Your task to perform on an android device: check battery use Image 0: 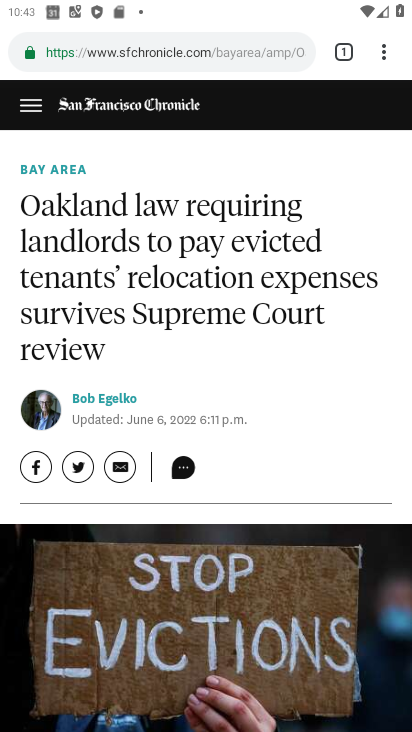
Step 0: press back button
Your task to perform on an android device: check battery use Image 1: 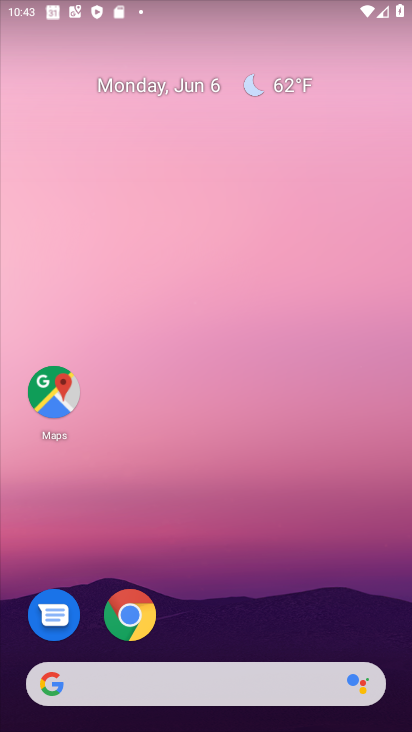
Step 1: drag from (191, 458) to (129, 155)
Your task to perform on an android device: check battery use Image 2: 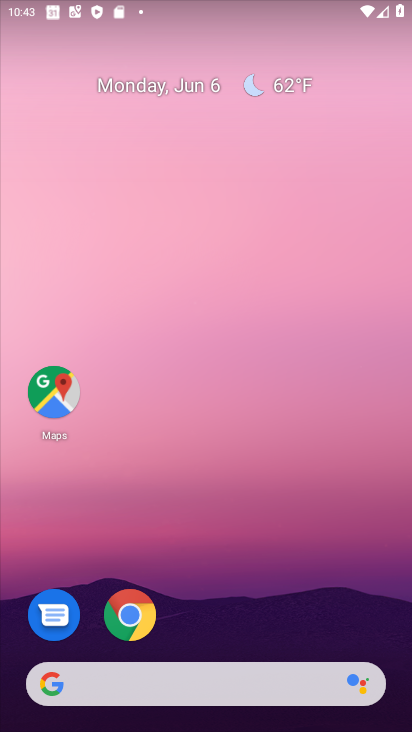
Step 2: drag from (227, 389) to (180, 59)
Your task to perform on an android device: check battery use Image 3: 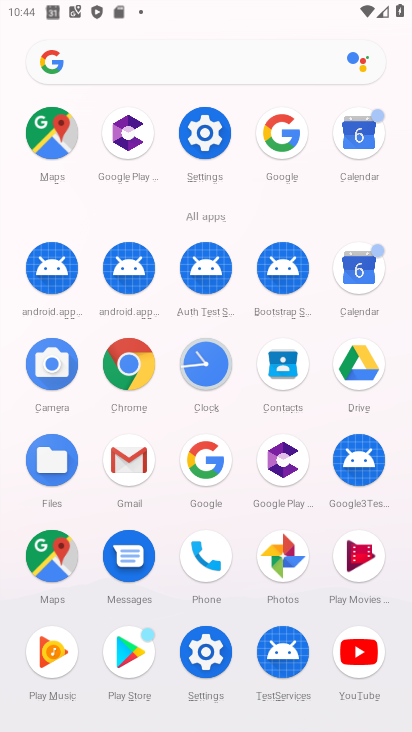
Step 3: drag from (239, 454) to (201, 91)
Your task to perform on an android device: check battery use Image 4: 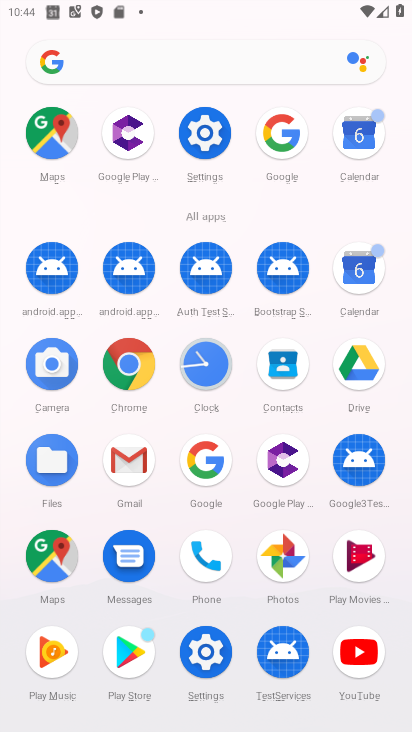
Step 4: click (200, 660)
Your task to perform on an android device: check battery use Image 5: 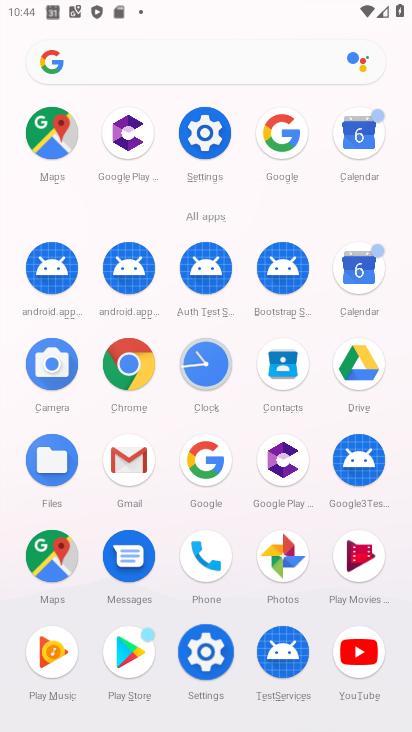
Step 5: click (200, 660)
Your task to perform on an android device: check battery use Image 6: 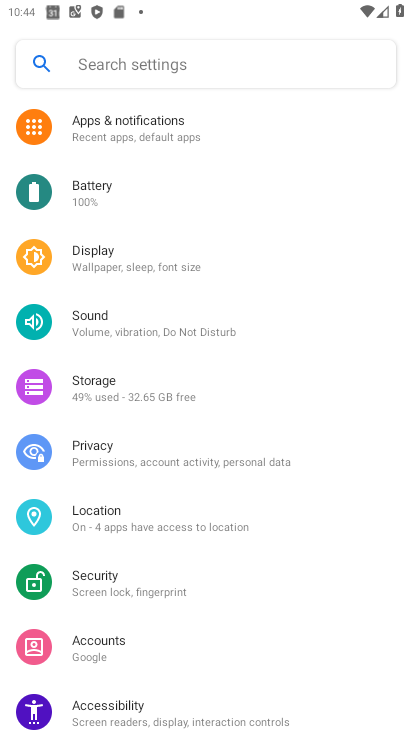
Step 6: click (199, 659)
Your task to perform on an android device: check battery use Image 7: 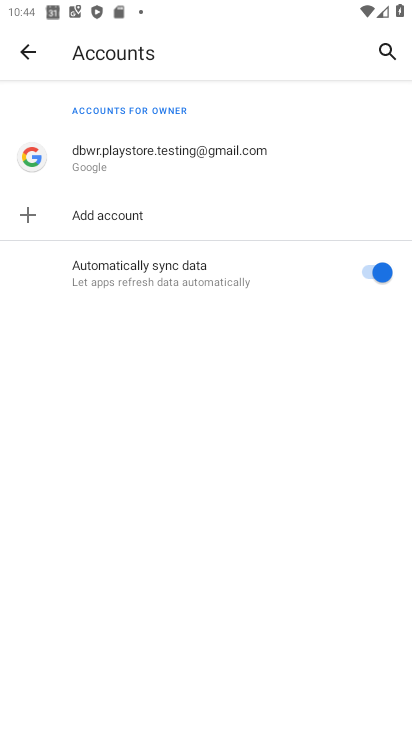
Step 7: click (28, 51)
Your task to perform on an android device: check battery use Image 8: 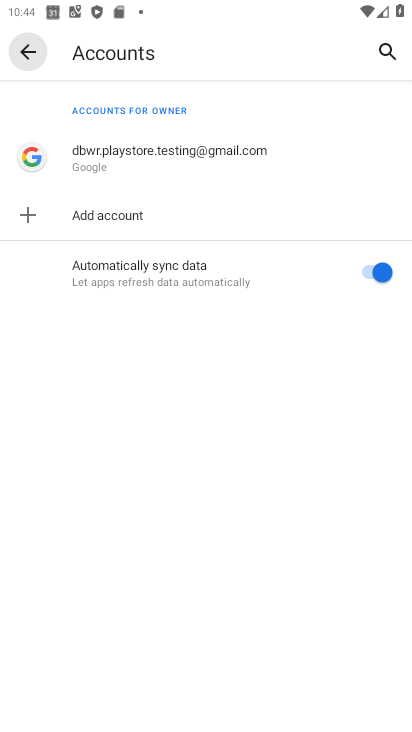
Step 8: click (28, 51)
Your task to perform on an android device: check battery use Image 9: 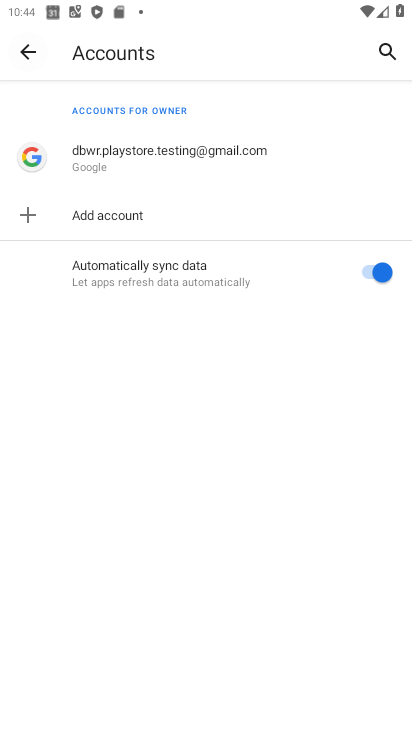
Step 9: click (29, 51)
Your task to perform on an android device: check battery use Image 10: 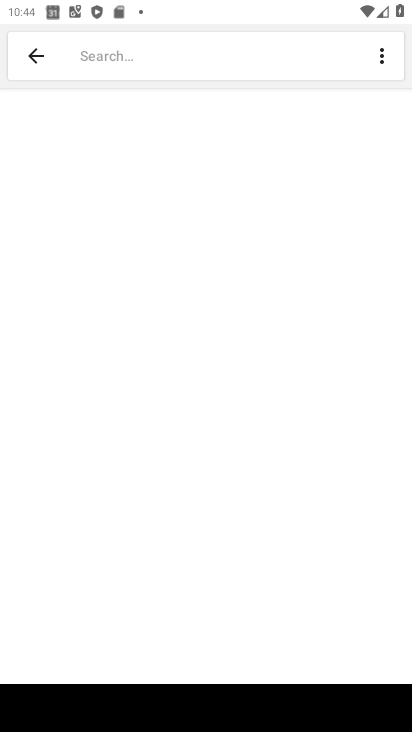
Step 10: click (35, 52)
Your task to perform on an android device: check battery use Image 11: 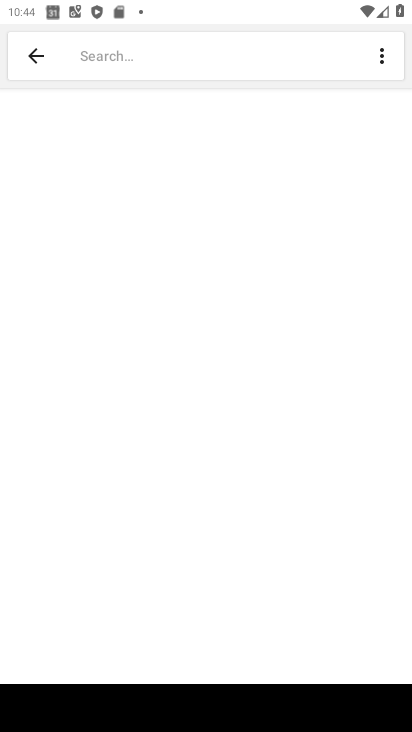
Step 11: click (35, 52)
Your task to perform on an android device: check battery use Image 12: 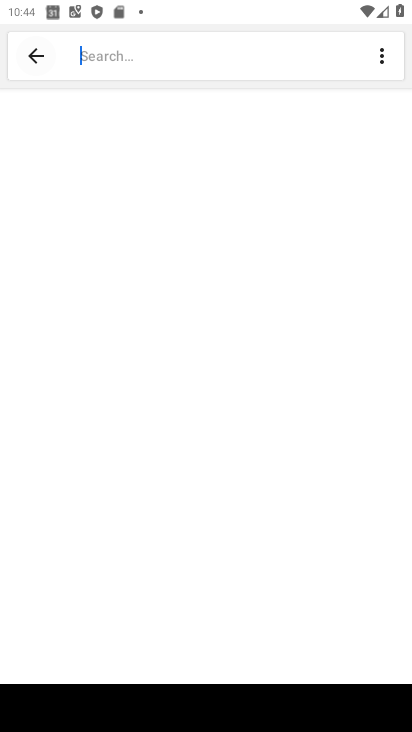
Step 12: click (35, 52)
Your task to perform on an android device: check battery use Image 13: 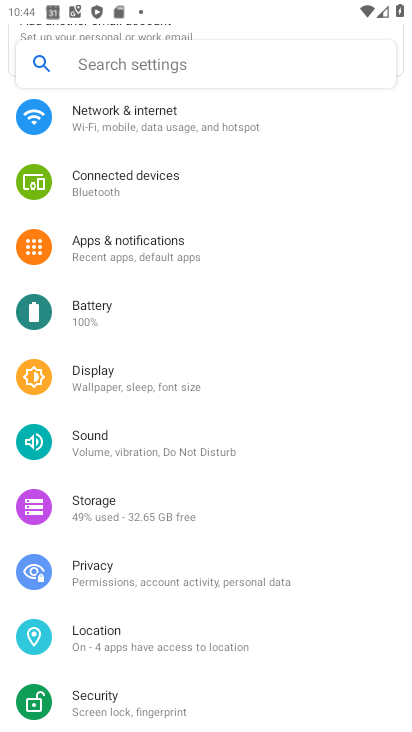
Step 13: click (93, 314)
Your task to perform on an android device: check battery use Image 14: 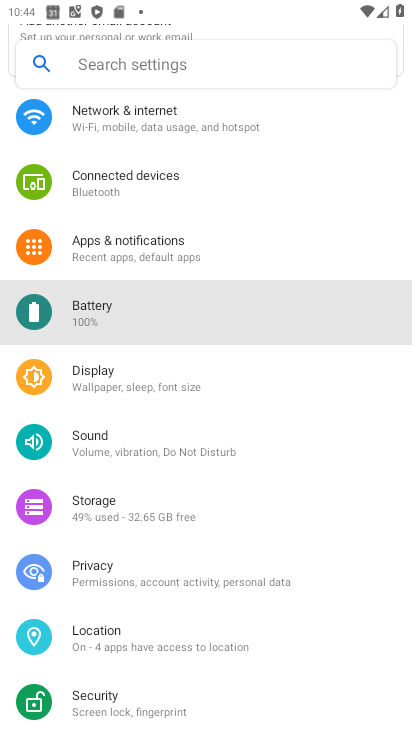
Step 14: click (93, 314)
Your task to perform on an android device: check battery use Image 15: 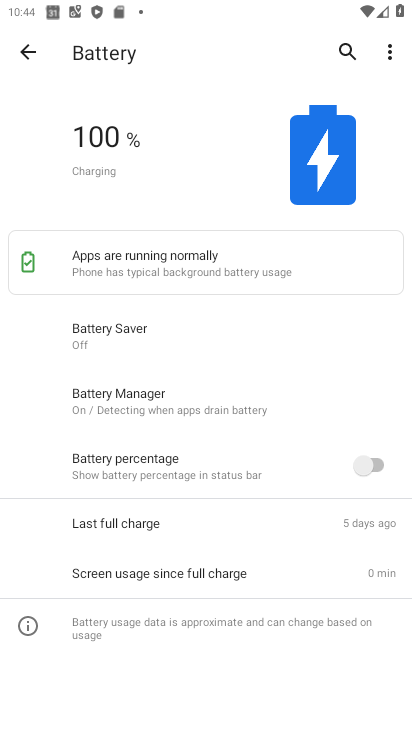
Step 15: task complete